Your task to perform on an android device: turn off javascript in the chrome app Image 0: 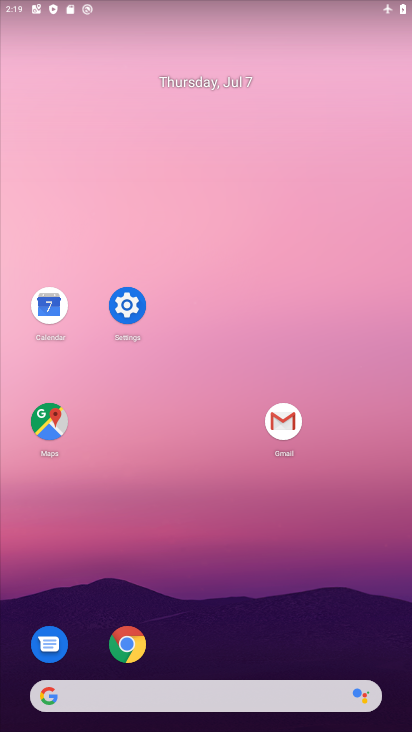
Step 0: click (131, 640)
Your task to perform on an android device: turn off javascript in the chrome app Image 1: 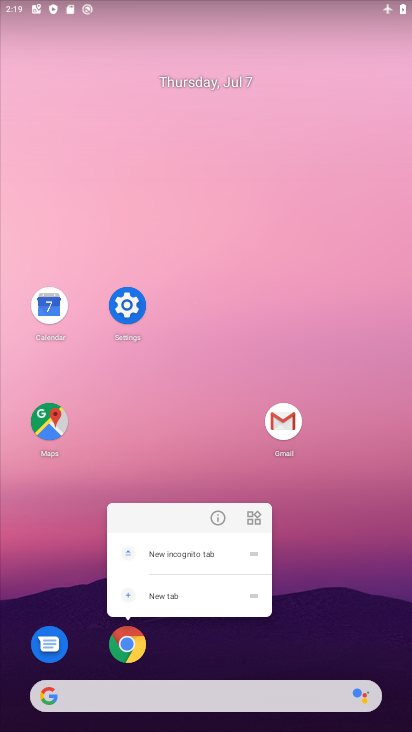
Step 1: click (131, 640)
Your task to perform on an android device: turn off javascript in the chrome app Image 2: 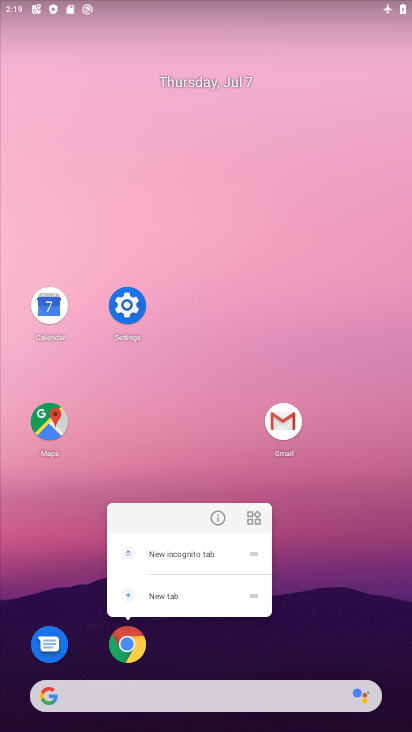
Step 2: click (131, 640)
Your task to perform on an android device: turn off javascript in the chrome app Image 3: 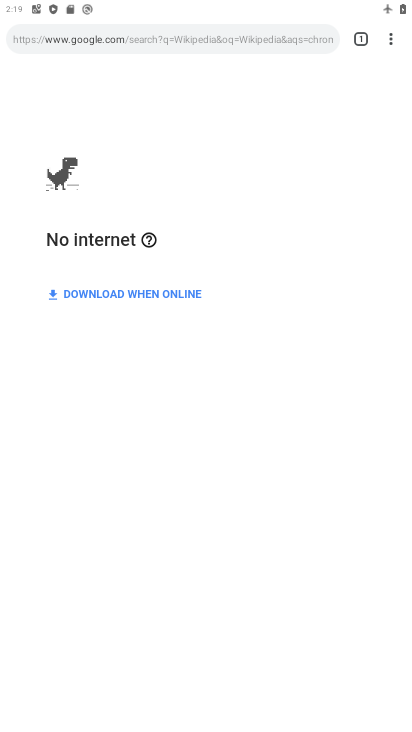
Step 3: click (388, 34)
Your task to perform on an android device: turn off javascript in the chrome app Image 4: 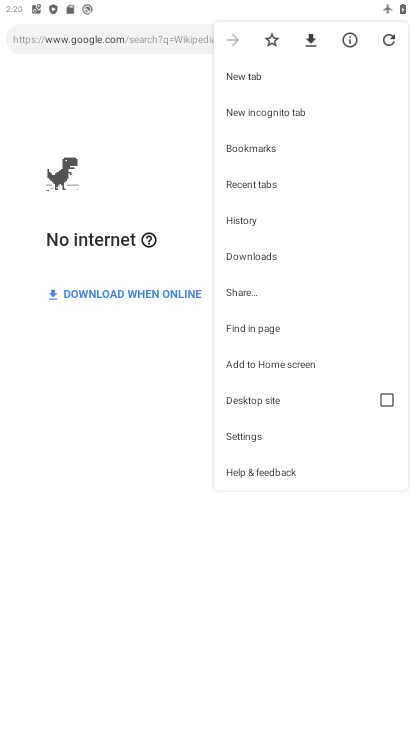
Step 4: click (235, 430)
Your task to perform on an android device: turn off javascript in the chrome app Image 5: 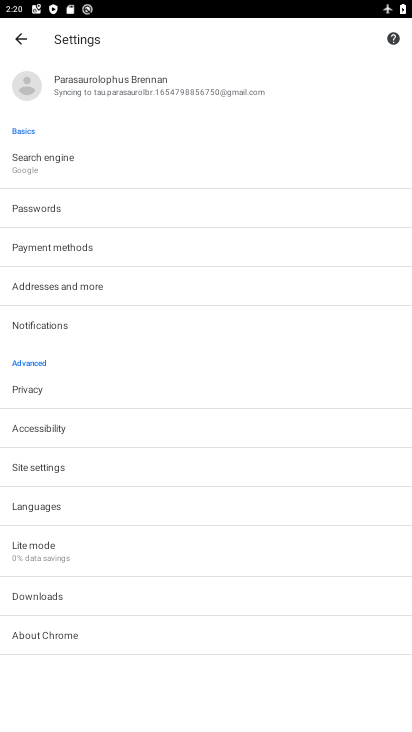
Step 5: click (65, 457)
Your task to perform on an android device: turn off javascript in the chrome app Image 6: 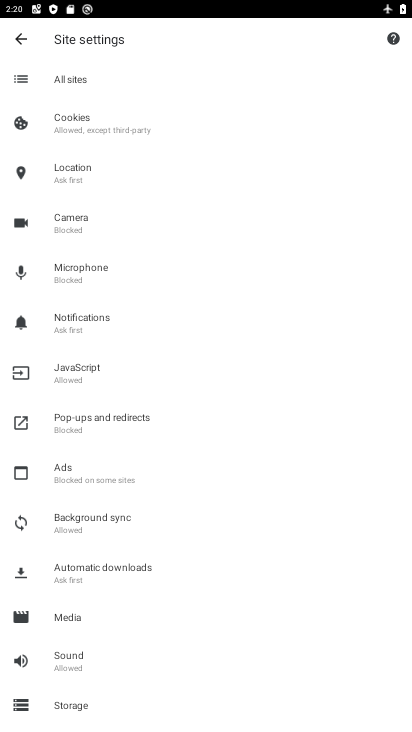
Step 6: click (102, 372)
Your task to perform on an android device: turn off javascript in the chrome app Image 7: 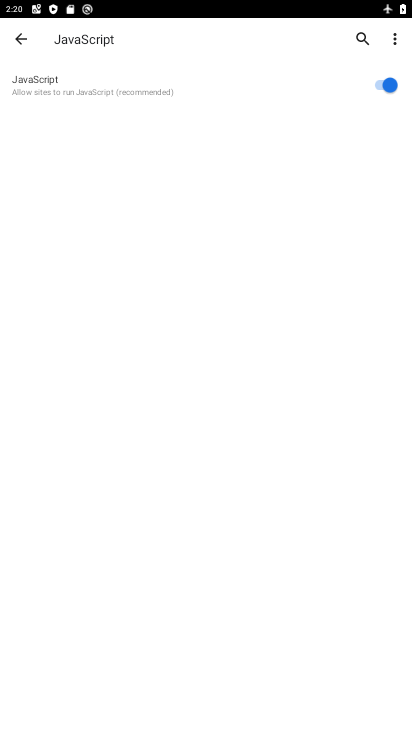
Step 7: click (387, 84)
Your task to perform on an android device: turn off javascript in the chrome app Image 8: 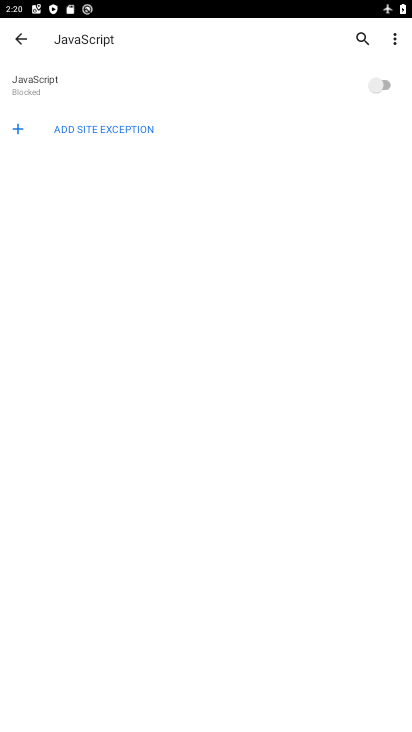
Step 8: task complete